Your task to perform on an android device: Open Chrome and go to settings Image 0: 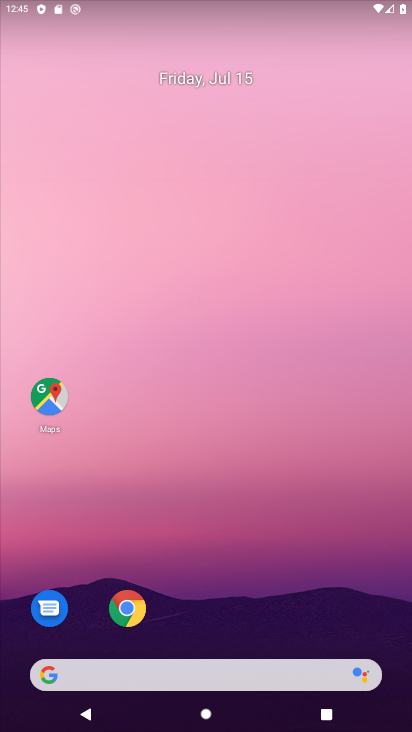
Step 0: click (123, 613)
Your task to perform on an android device: Open Chrome and go to settings Image 1: 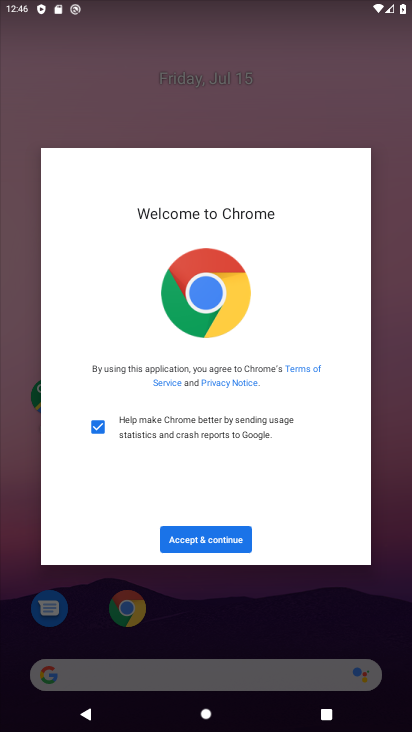
Step 1: click (191, 543)
Your task to perform on an android device: Open Chrome and go to settings Image 2: 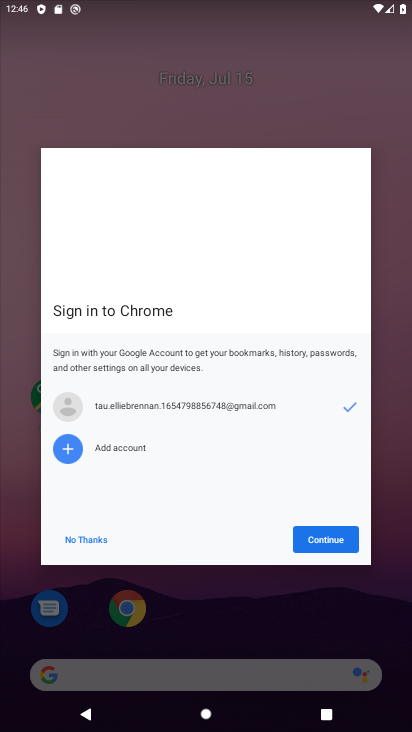
Step 2: click (191, 543)
Your task to perform on an android device: Open Chrome and go to settings Image 3: 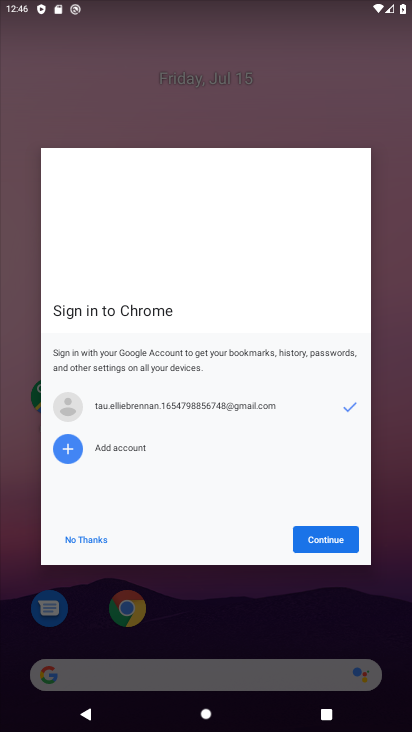
Step 3: click (330, 534)
Your task to perform on an android device: Open Chrome and go to settings Image 4: 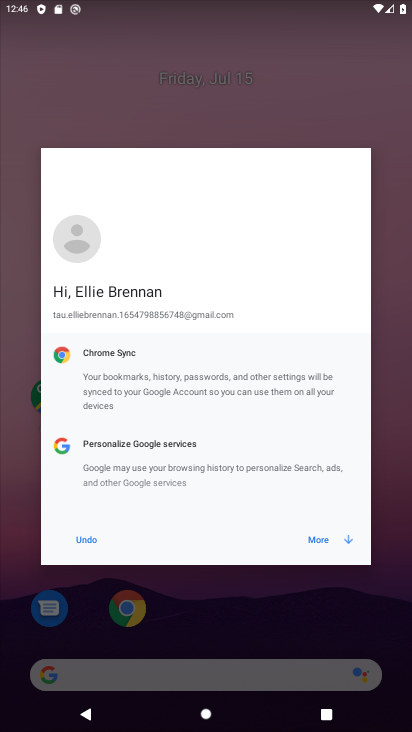
Step 4: click (330, 534)
Your task to perform on an android device: Open Chrome and go to settings Image 5: 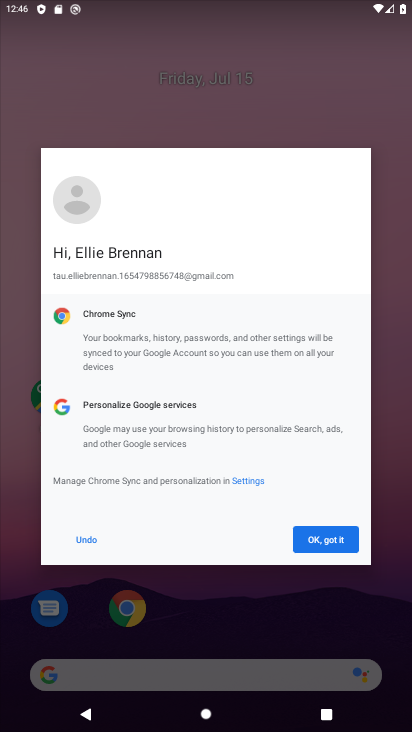
Step 5: click (330, 534)
Your task to perform on an android device: Open Chrome and go to settings Image 6: 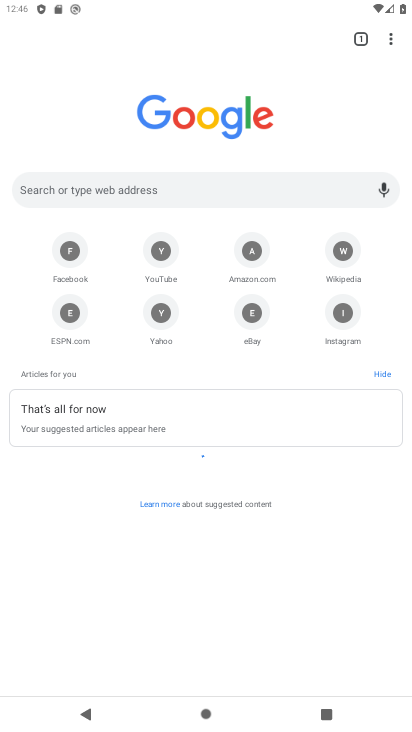
Step 6: click (382, 39)
Your task to perform on an android device: Open Chrome and go to settings Image 7: 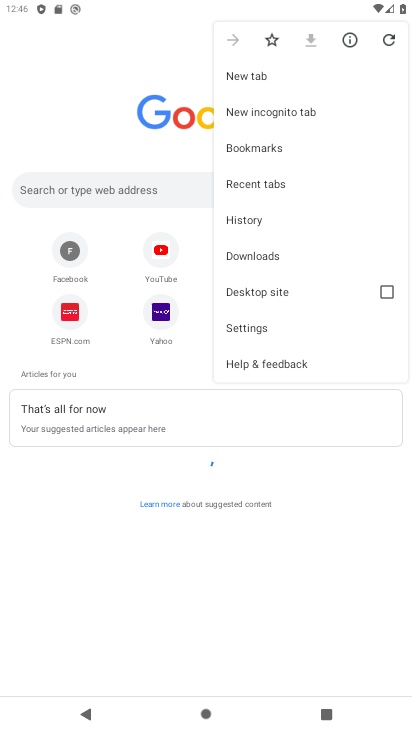
Step 7: click (251, 321)
Your task to perform on an android device: Open Chrome and go to settings Image 8: 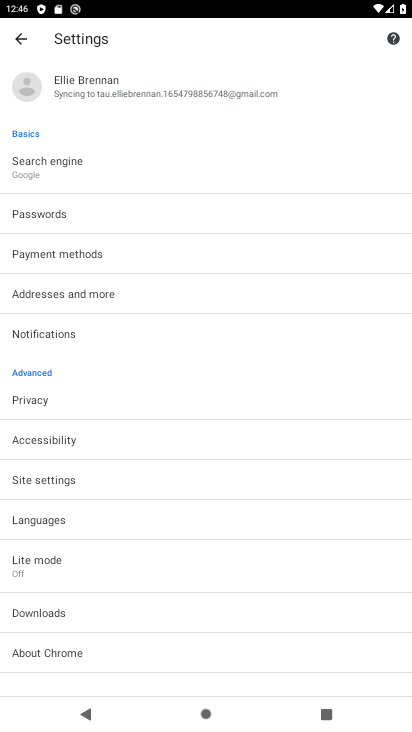
Step 8: task complete